Your task to perform on an android device: Open location settings Image 0: 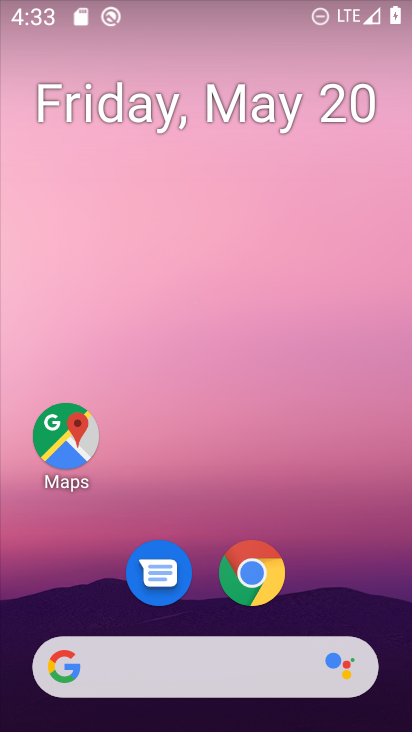
Step 0: drag from (363, 535) to (262, 113)
Your task to perform on an android device: Open location settings Image 1: 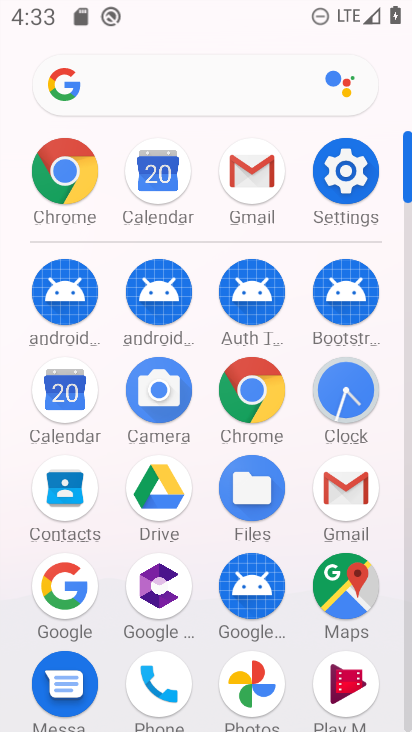
Step 1: click (358, 156)
Your task to perform on an android device: Open location settings Image 2: 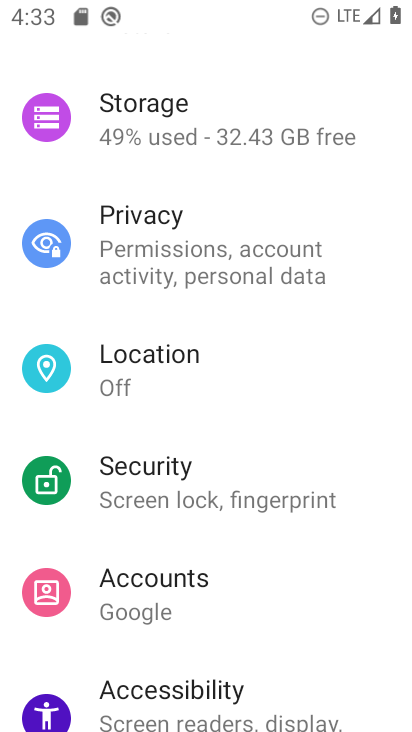
Step 2: click (273, 385)
Your task to perform on an android device: Open location settings Image 3: 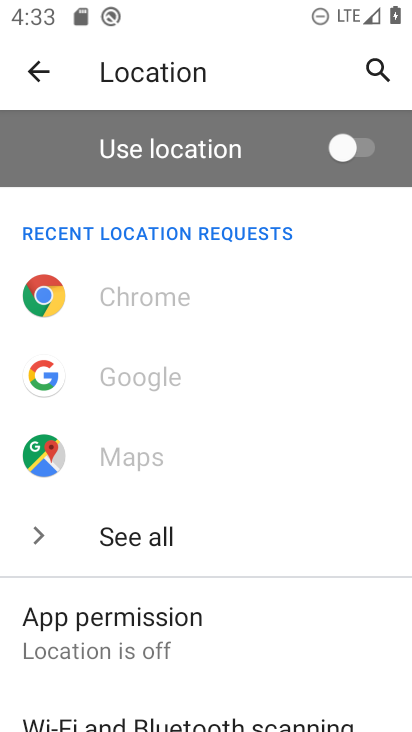
Step 3: task complete